Your task to perform on an android device: open app "Lyft - Rideshare, Bikes, Scooters & Transit" (install if not already installed) Image 0: 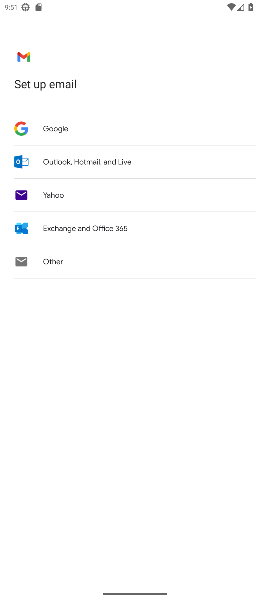
Step 0: press home button
Your task to perform on an android device: open app "Lyft - Rideshare, Bikes, Scooters & Transit" (install if not already installed) Image 1: 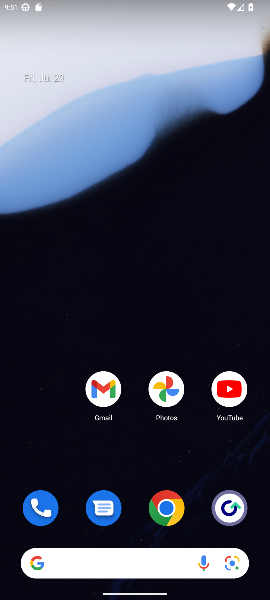
Step 1: drag from (171, 555) to (187, 62)
Your task to perform on an android device: open app "Lyft - Rideshare, Bikes, Scooters & Transit" (install if not already installed) Image 2: 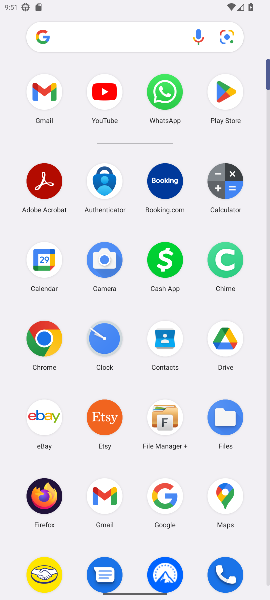
Step 2: click (226, 92)
Your task to perform on an android device: open app "Lyft - Rideshare, Bikes, Scooters & Transit" (install if not already installed) Image 3: 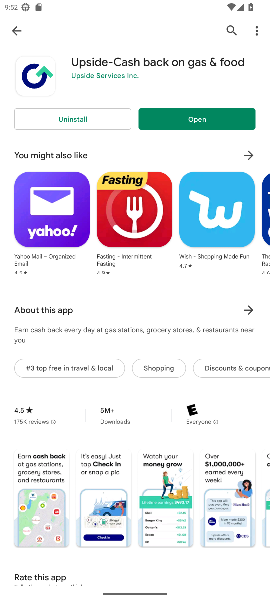
Step 3: click (231, 25)
Your task to perform on an android device: open app "Lyft - Rideshare, Bikes, Scooters & Transit" (install if not already installed) Image 4: 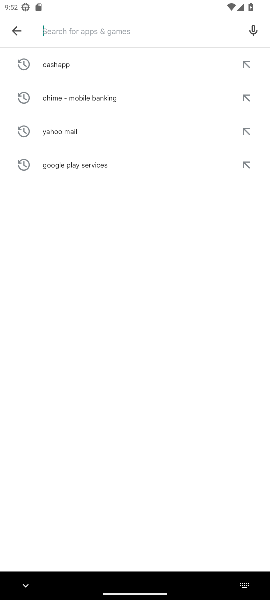
Step 4: type "lyft "
Your task to perform on an android device: open app "Lyft - Rideshare, Bikes, Scooters & Transit" (install if not already installed) Image 5: 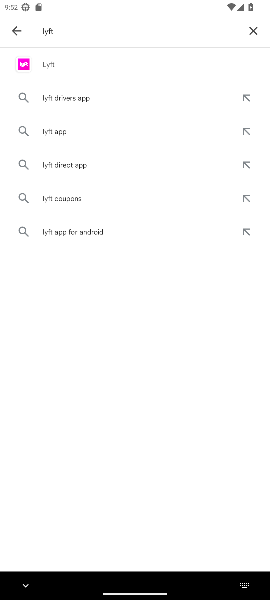
Step 5: click (50, 65)
Your task to perform on an android device: open app "Lyft - Rideshare, Bikes, Scooters & Transit" (install if not already installed) Image 6: 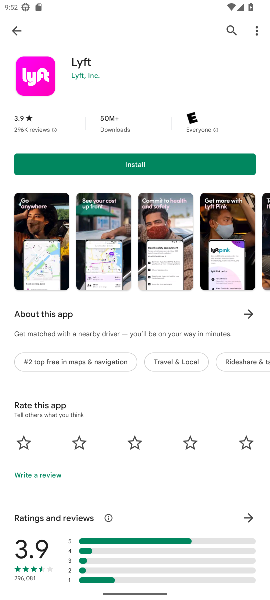
Step 6: click (153, 168)
Your task to perform on an android device: open app "Lyft - Rideshare, Bikes, Scooters & Transit" (install if not already installed) Image 7: 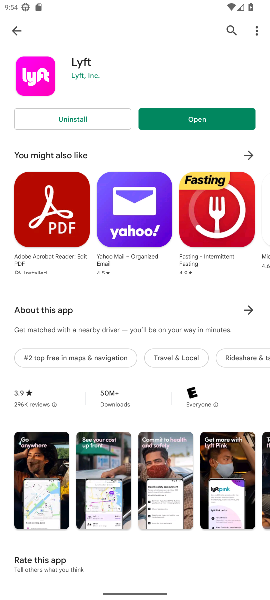
Step 7: click (199, 120)
Your task to perform on an android device: open app "Lyft - Rideshare, Bikes, Scooters & Transit" (install if not already installed) Image 8: 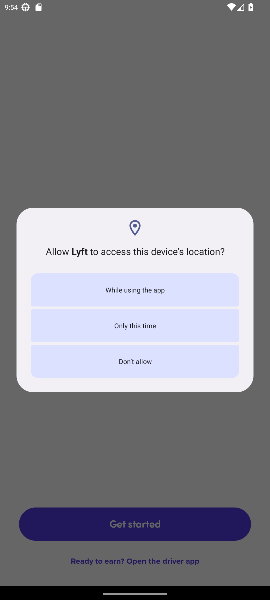
Step 8: task complete